Your task to perform on an android device: Open notification settings Image 0: 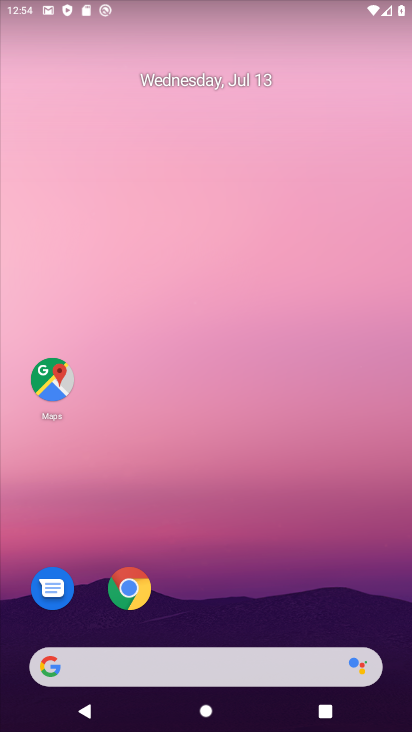
Step 0: press home button
Your task to perform on an android device: Open notification settings Image 1: 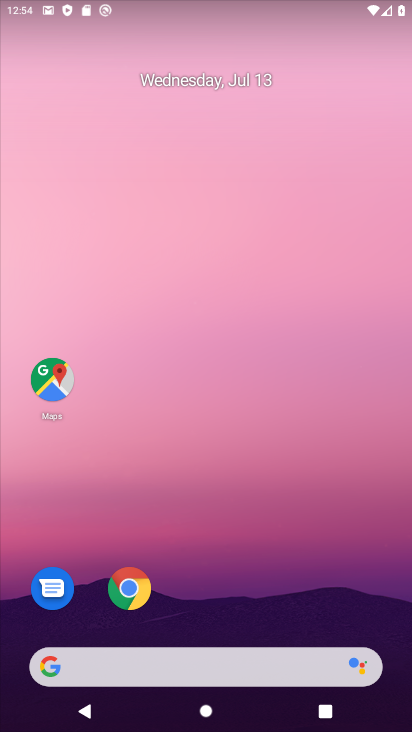
Step 1: drag from (304, 616) to (282, 174)
Your task to perform on an android device: Open notification settings Image 2: 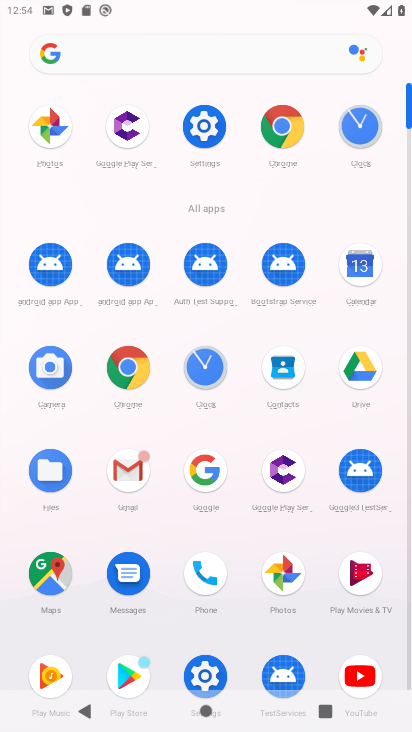
Step 2: click (194, 122)
Your task to perform on an android device: Open notification settings Image 3: 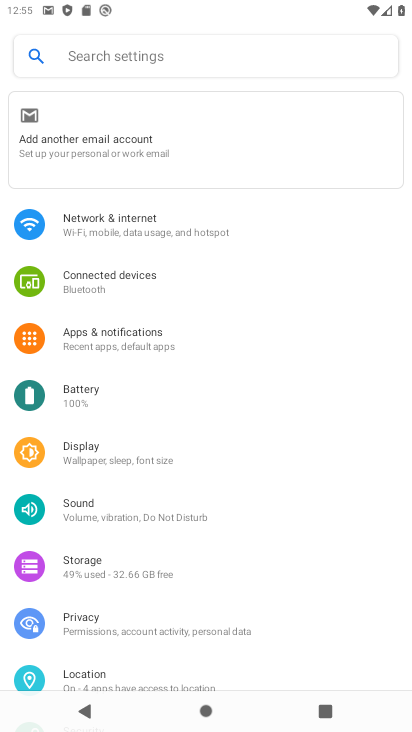
Step 3: click (110, 325)
Your task to perform on an android device: Open notification settings Image 4: 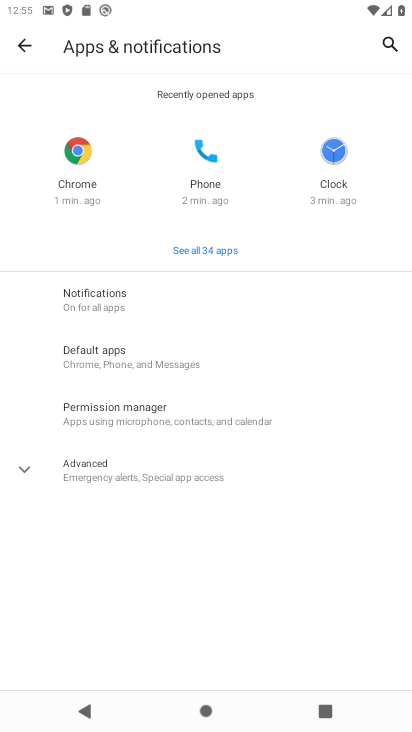
Step 4: click (110, 310)
Your task to perform on an android device: Open notification settings Image 5: 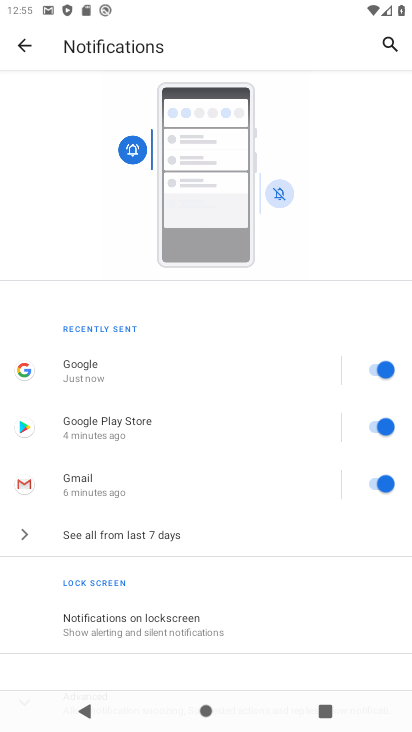
Step 5: task complete